Your task to perform on an android device: See recent photos Image 0: 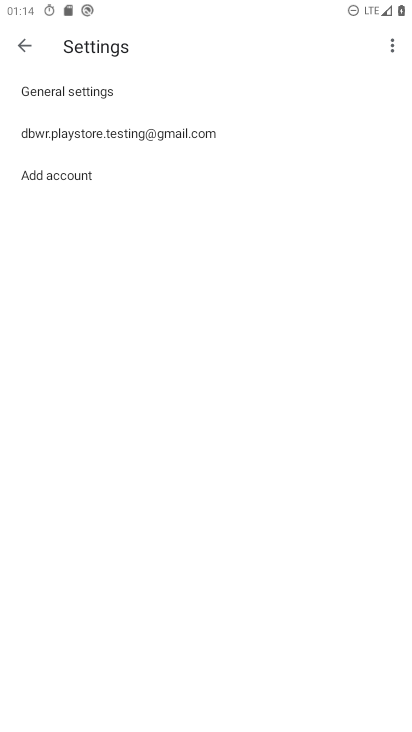
Step 0: press home button
Your task to perform on an android device: See recent photos Image 1: 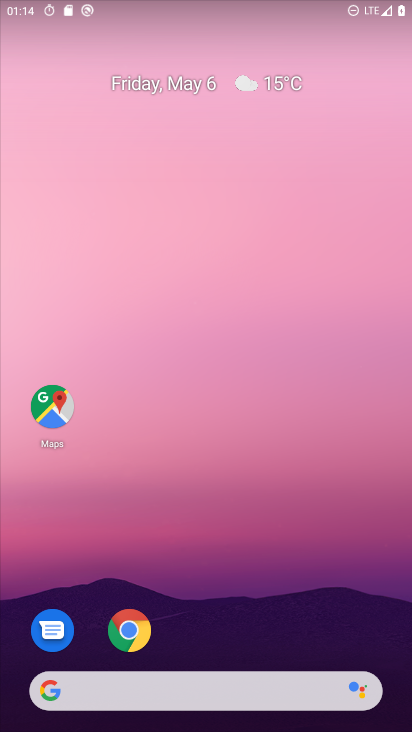
Step 1: drag from (253, 466) to (230, 0)
Your task to perform on an android device: See recent photos Image 2: 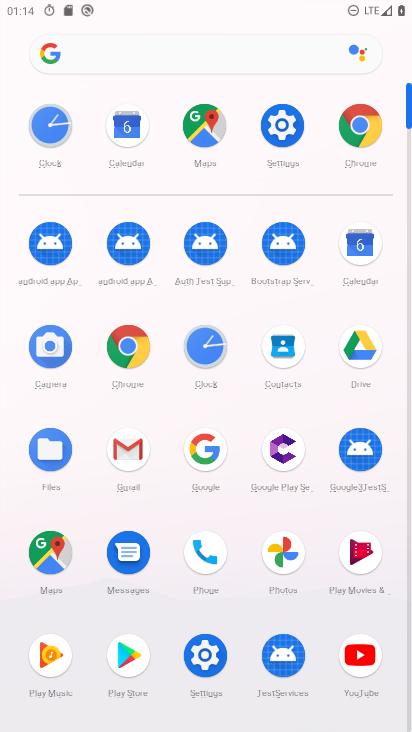
Step 2: click (279, 546)
Your task to perform on an android device: See recent photos Image 3: 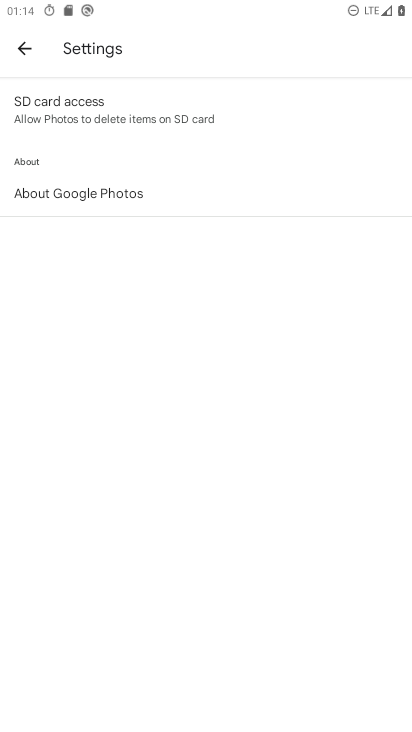
Step 3: click (31, 58)
Your task to perform on an android device: See recent photos Image 4: 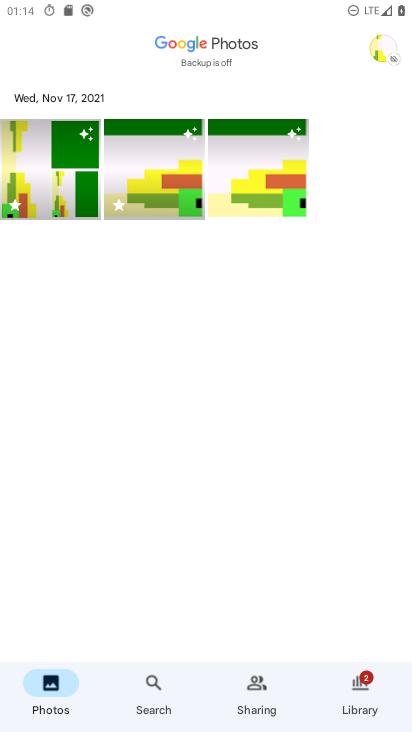
Step 4: click (392, 57)
Your task to perform on an android device: See recent photos Image 5: 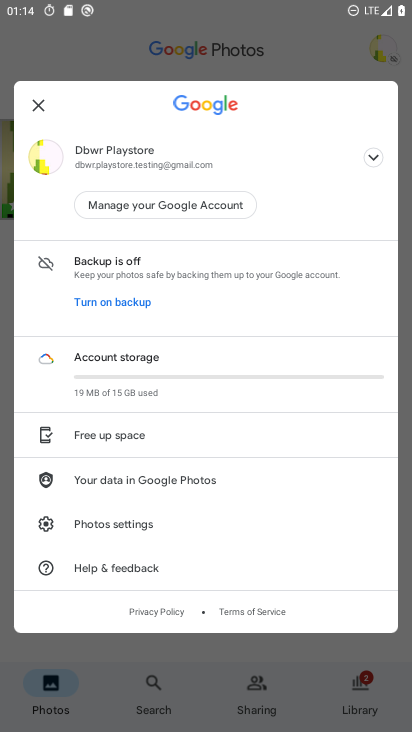
Step 5: click (255, 58)
Your task to perform on an android device: See recent photos Image 6: 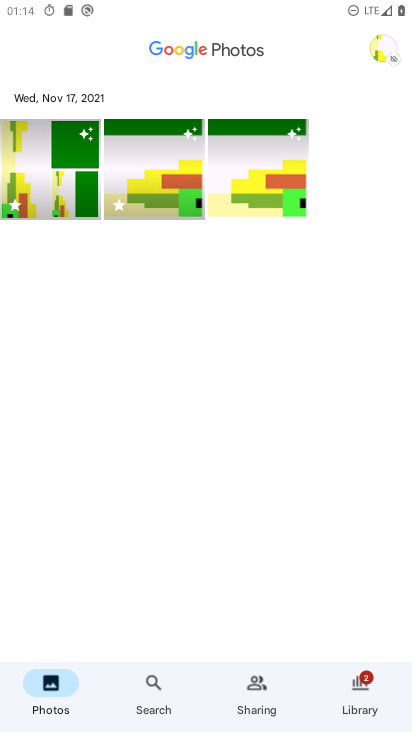
Step 6: click (57, 150)
Your task to perform on an android device: See recent photos Image 7: 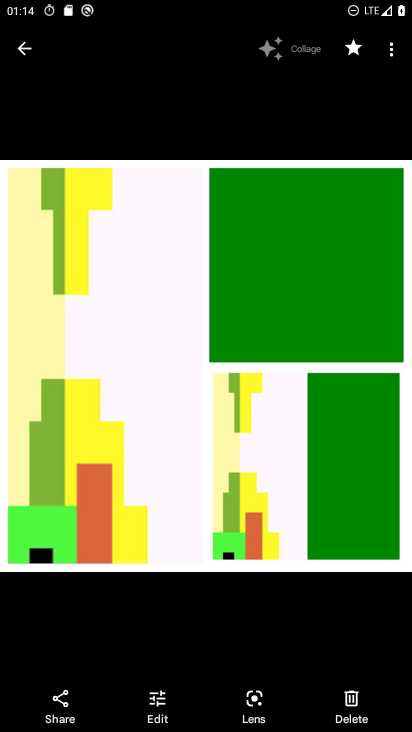
Step 7: task complete